Your task to perform on an android device: open chrome and create a bookmark for the current page Image 0: 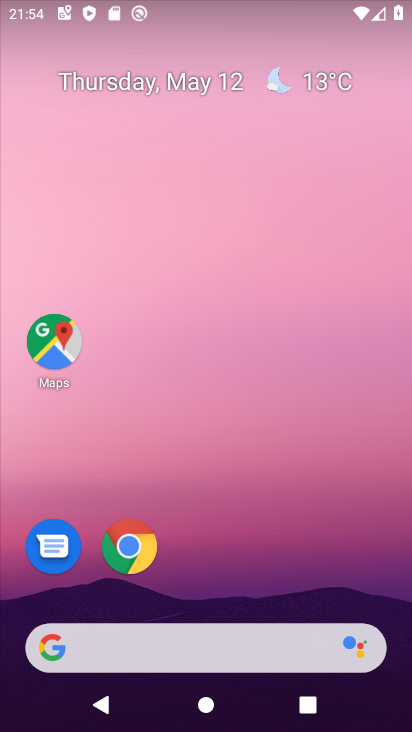
Step 0: click (145, 550)
Your task to perform on an android device: open chrome and create a bookmark for the current page Image 1: 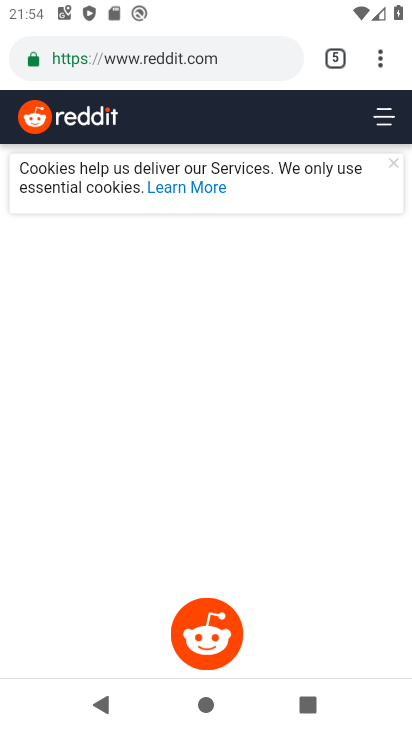
Step 1: task complete